Your task to perform on an android device: add a contact in the contacts app Image 0: 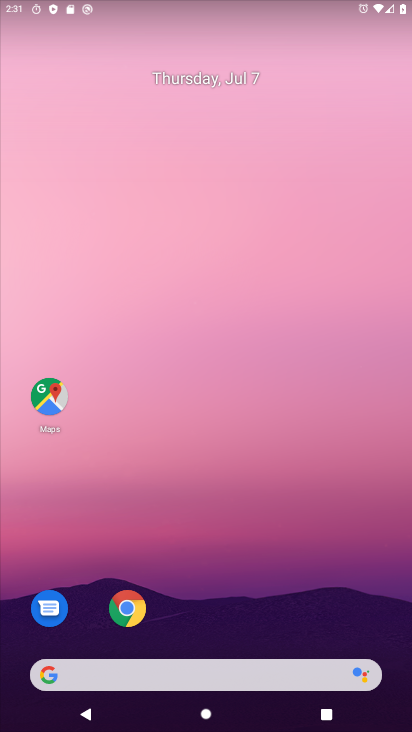
Step 0: drag from (242, 723) to (231, 41)
Your task to perform on an android device: add a contact in the contacts app Image 1: 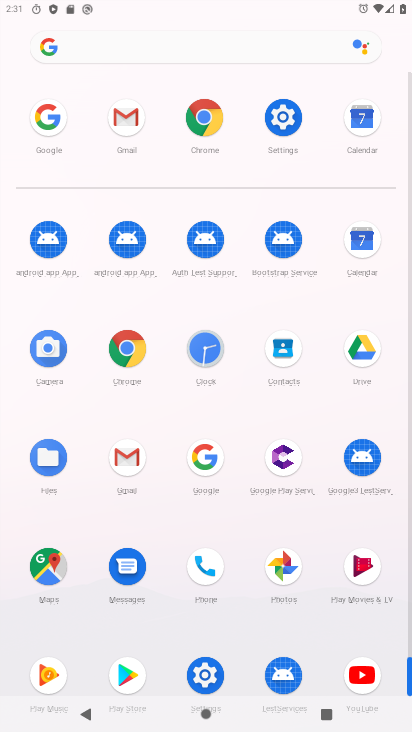
Step 1: click (284, 345)
Your task to perform on an android device: add a contact in the contacts app Image 2: 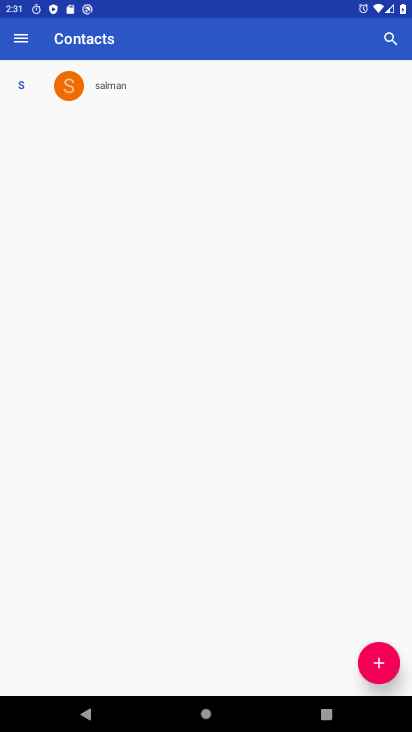
Step 2: click (376, 664)
Your task to perform on an android device: add a contact in the contacts app Image 3: 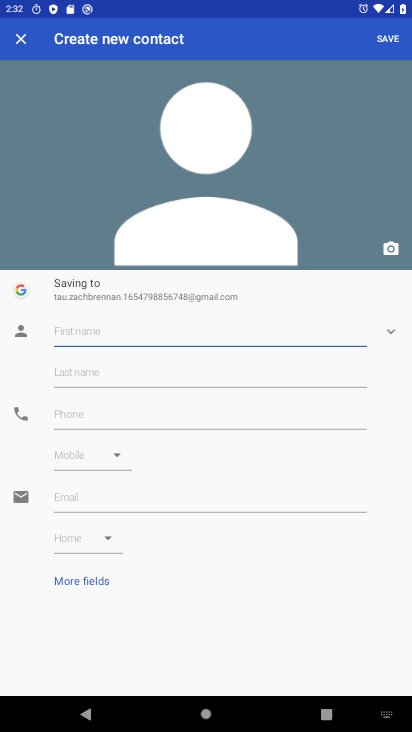
Step 3: type "tyuio"
Your task to perform on an android device: add a contact in the contacts app Image 4: 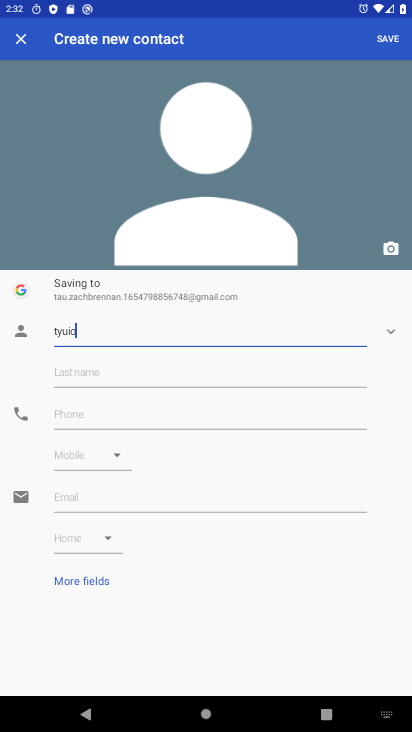
Step 4: click (105, 415)
Your task to perform on an android device: add a contact in the contacts app Image 5: 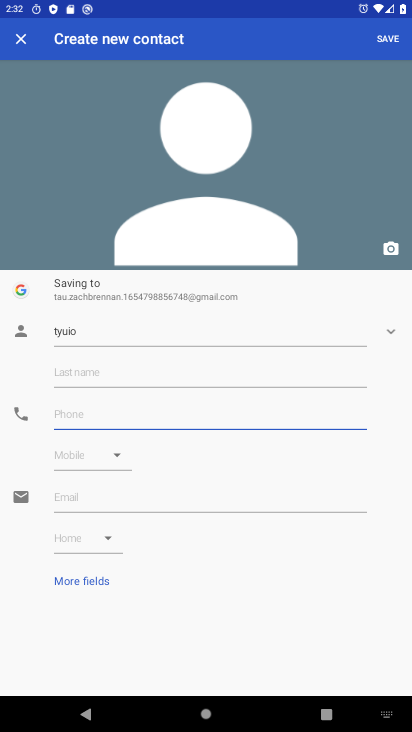
Step 5: type "656789"
Your task to perform on an android device: add a contact in the contacts app Image 6: 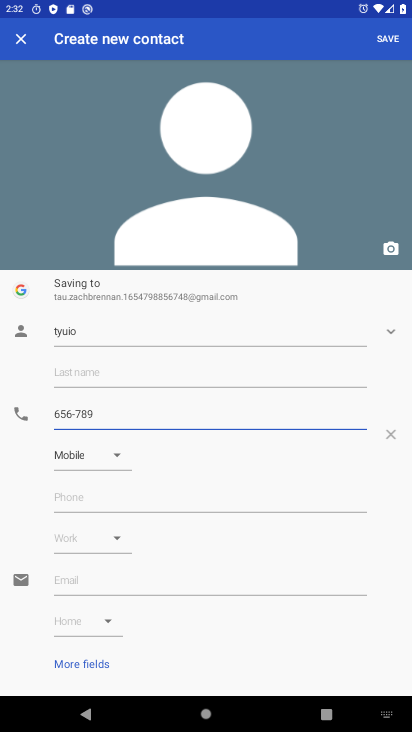
Step 6: click (382, 42)
Your task to perform on an android device: add a contact in the contacts app Image 7: 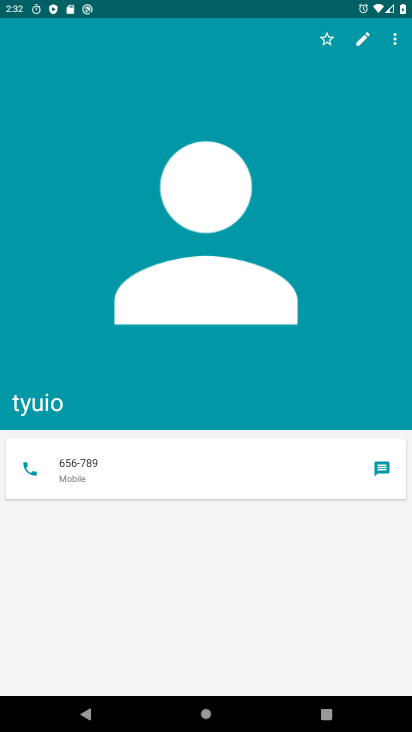
Step 7: task complete